Your task to perform on an android device: uninstall "PUBG MOBILE" Image 0: 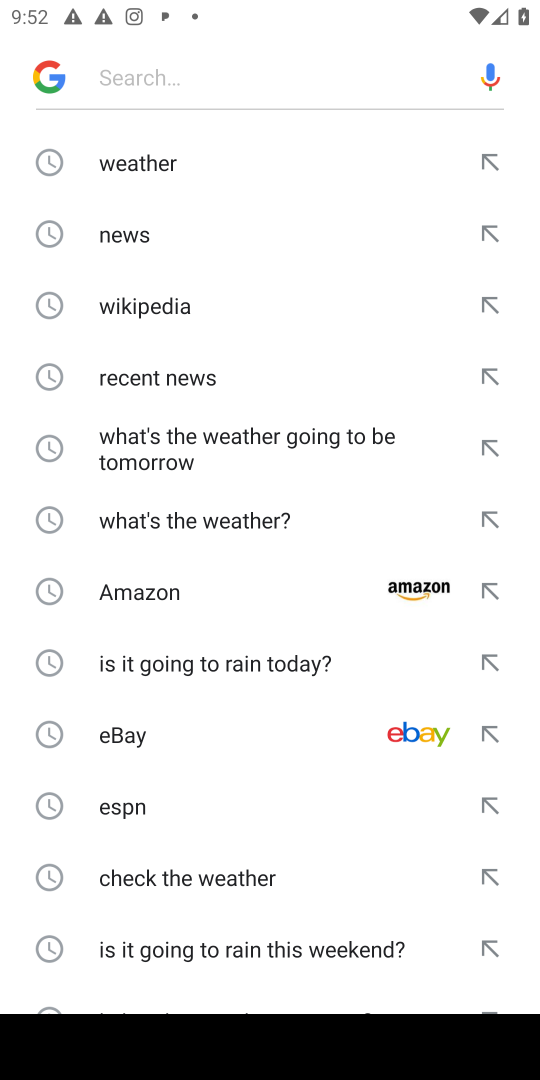
Step 0: press home button
Your task to perform on an android device: uninstall "PUBG MOBILE" Image 1: 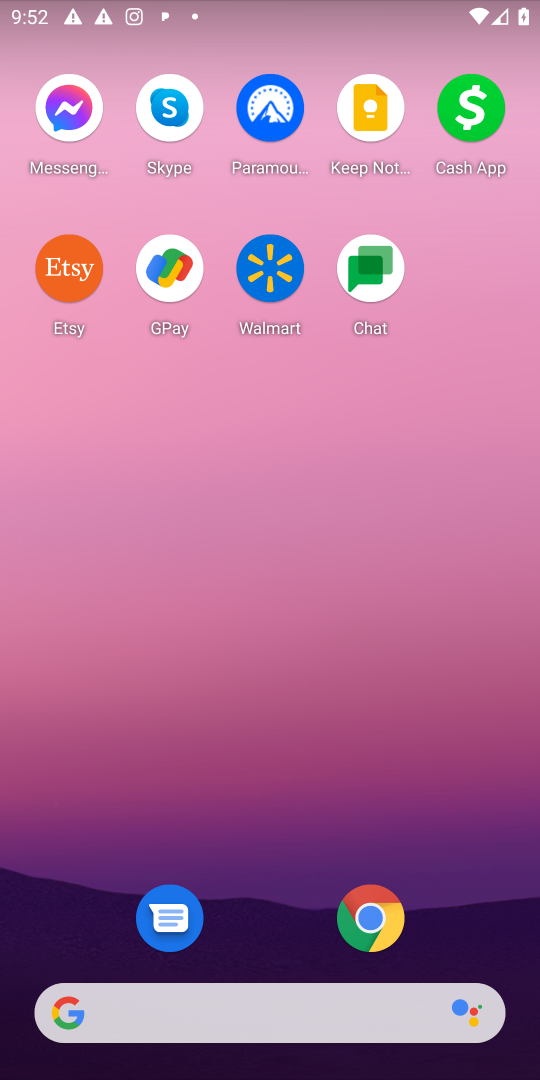
Step 1: press home button
Your task to perform on an android device: uninstall "PUBG MOBILE" Image 2: 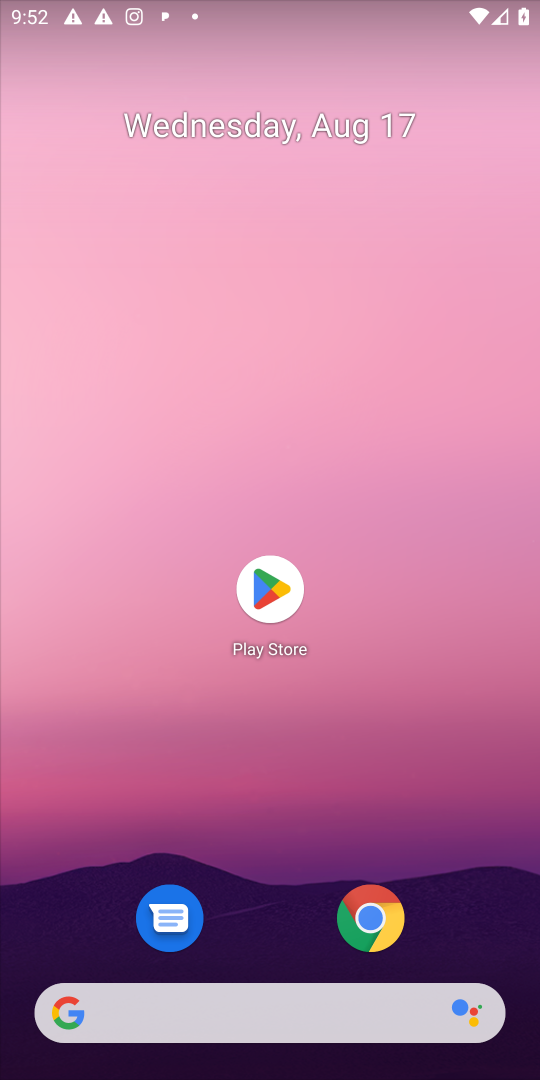
Step 2: click (278, 589)
Your task to perform on an android device: uninstall "PUBG MOBILE" Image 3: 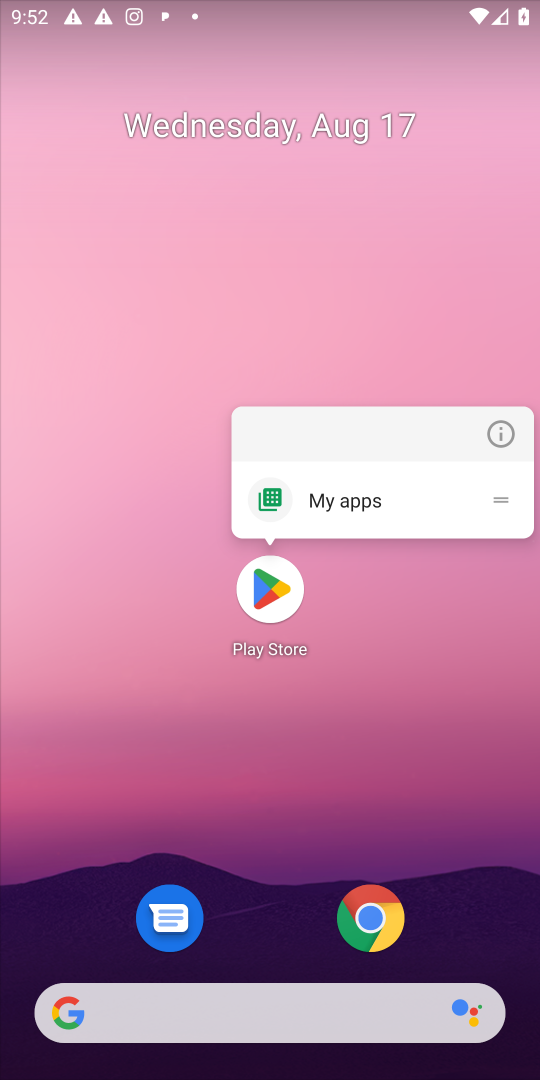
Step 3: click (267, 599)
Your task to perform on an android device: uninstall "PUBG MOBILE" Image 4: 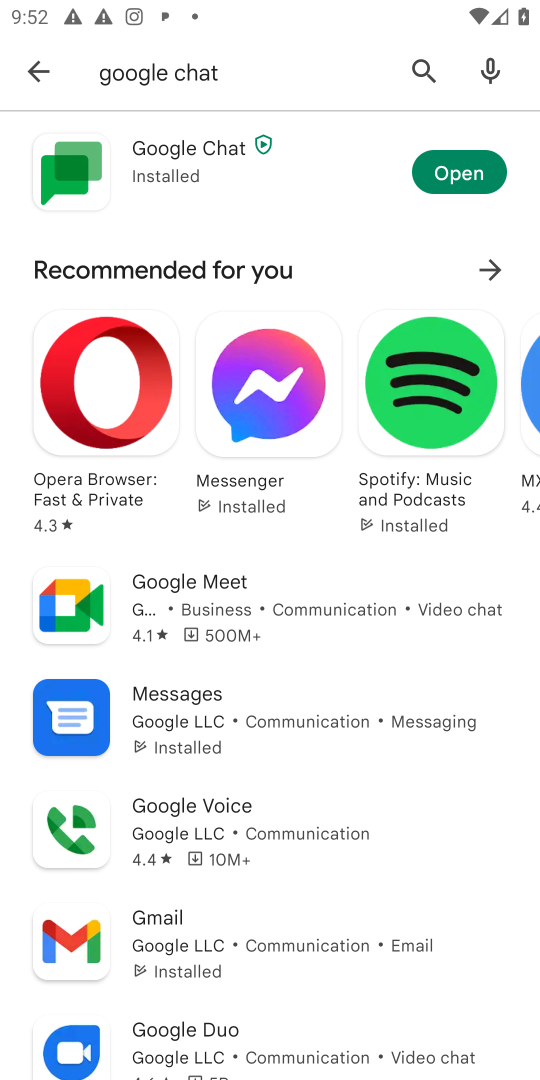
Step 4: click (415, 67)
Your task to perform on an android device: uninstall "PUBG MOBILE" Image 5: 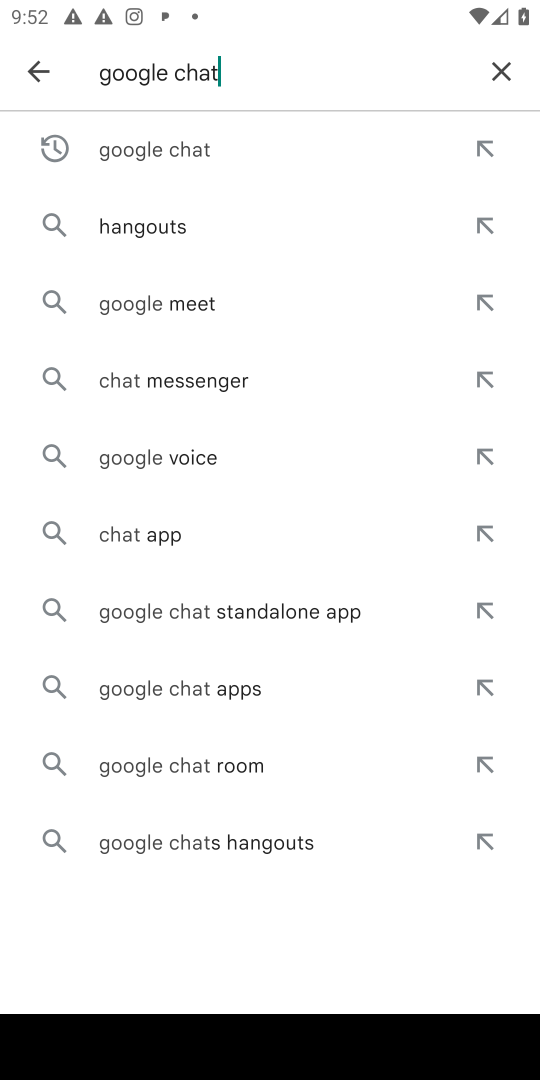
Step 5: click (504, 71)
Your task to perform on an android device: uninstall "PUBG MOBILE" Image 6: 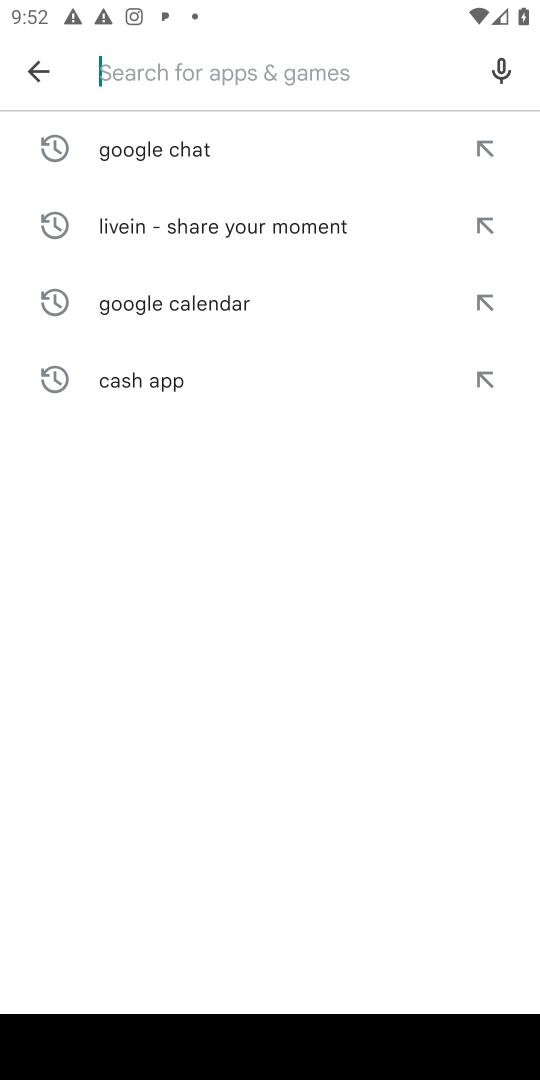
Step 6: type "PUBG MOBILE"
Your task to perform on an android device: uninstall "PUBG MOBILE" Image 7: 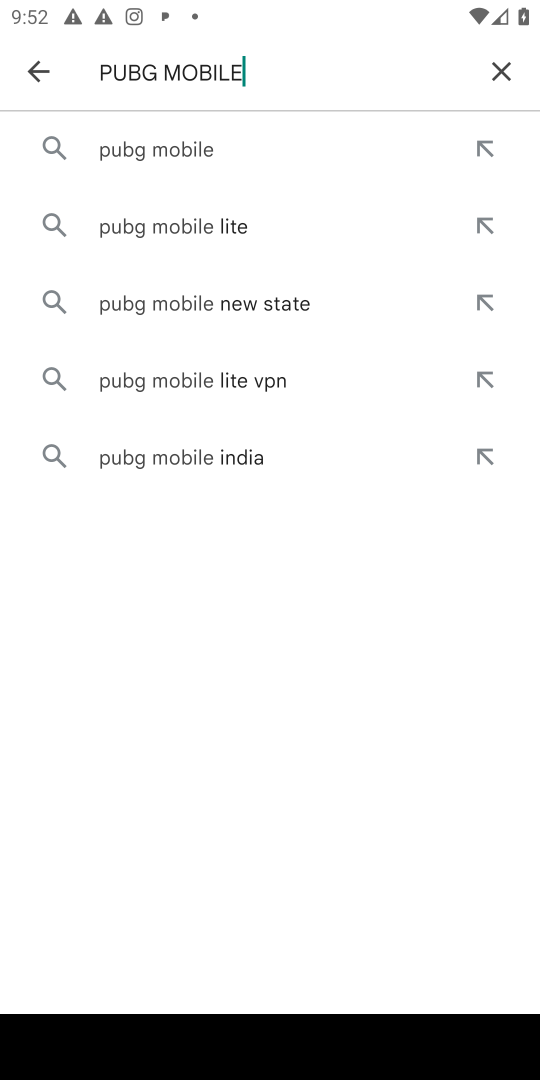
Step 7: click (131, 149)
Your task to perform on an android device: uninstall "PUBG MOBILE" Image 8: 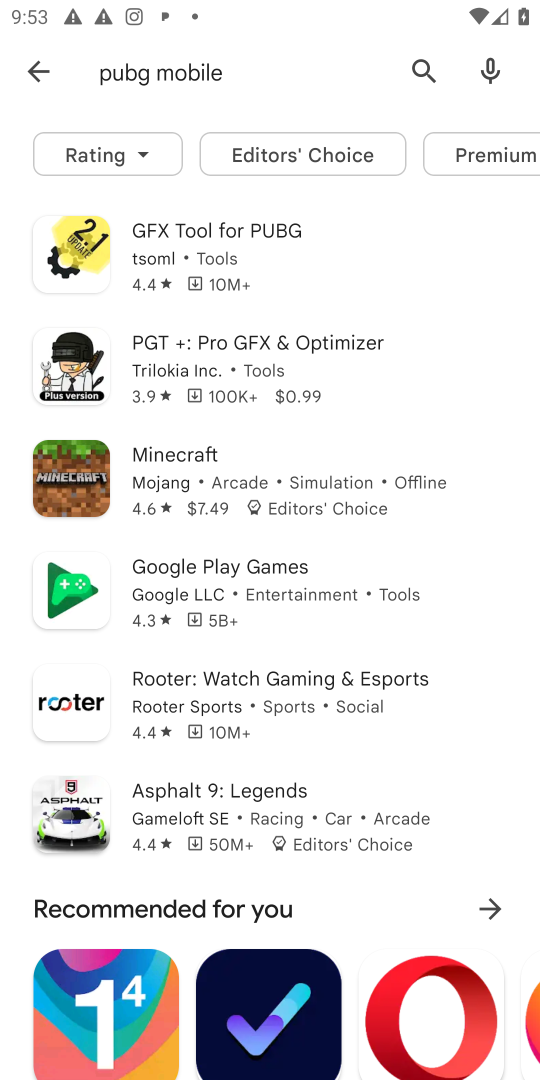
Step 8: task complete